Your task to perform on an android device: Open CNN.com Image 0: 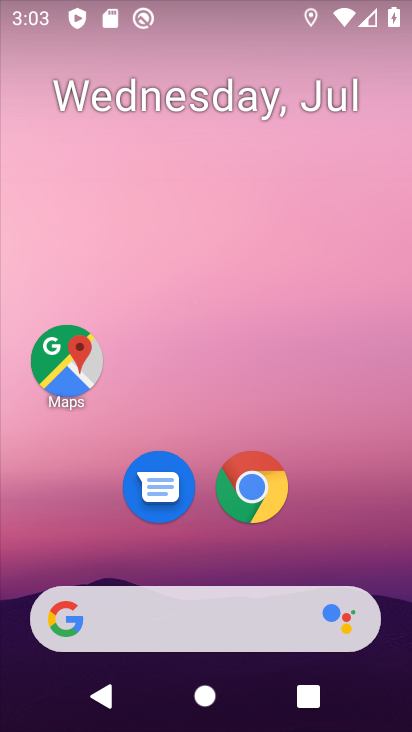
Step 0: click (261, 505)
Your task to perform on an android device: Open CNN.com Image 1: 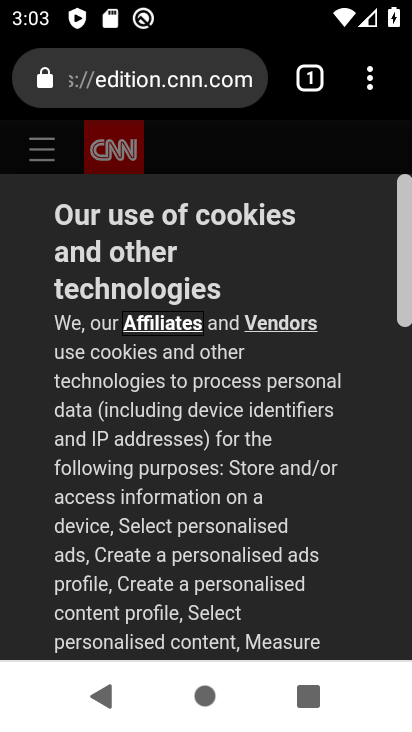
Step 1: task complete